Your task to perform on an android device: refresh tabs in the chrome app Image 0: 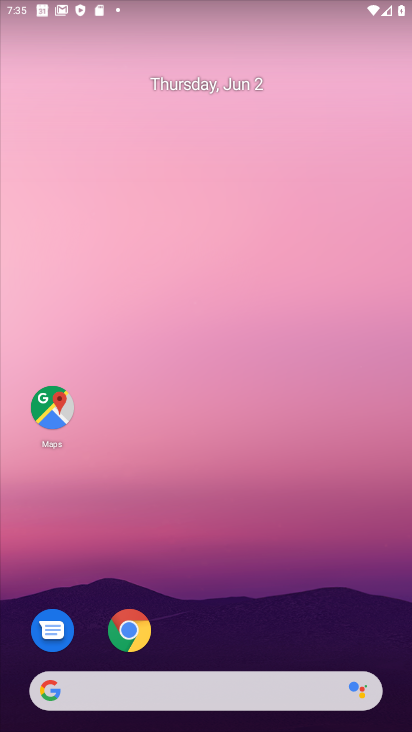
Step 0: click (133, 637)
Your task to perform on an android device: refresh tabs in the chrome app Image 1: 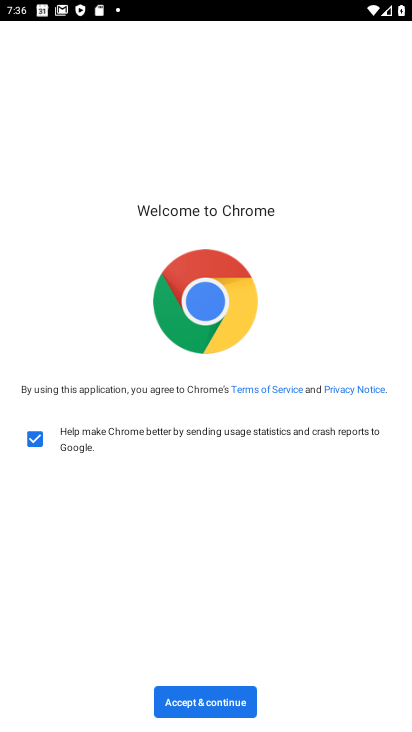
Step 1: click (201, 713)
Your task to perform on an android device: refresh tabs in the chrome app Image 2: 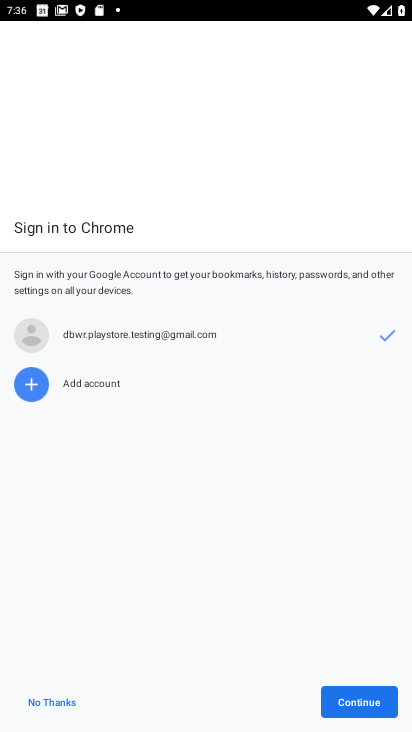
Step 2: click (391, 708)
Your task to perform on an android device: refresh tabs in the chrome app Image 3: 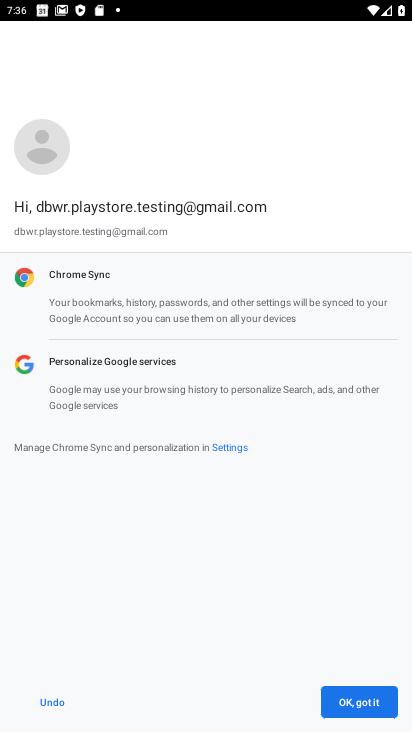
Step 3: click (369, 711)
Your task to perform on an android device: refresh tabs in the chrome app Image 4: 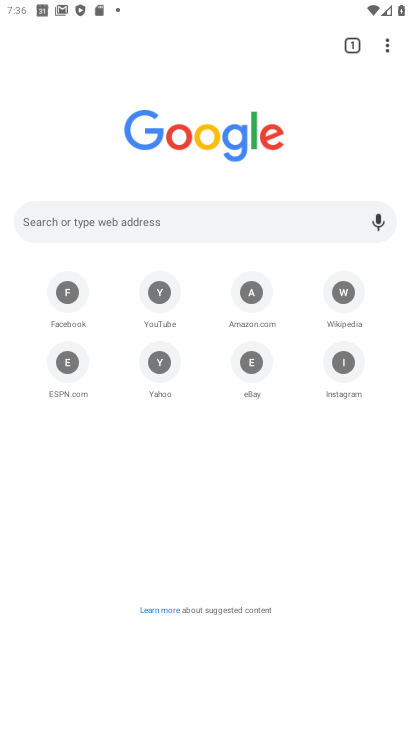
Step 4: click (385, 50)
Your task to perform on an android device: refresh tabs in the chrome app Image 5: 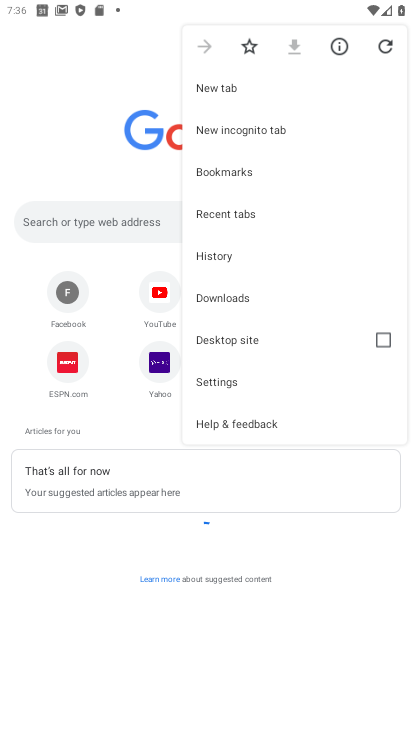
Step 5: click (384, 44)
Your task to perform on an android device: refresh tabs in the chrome app Image 6: 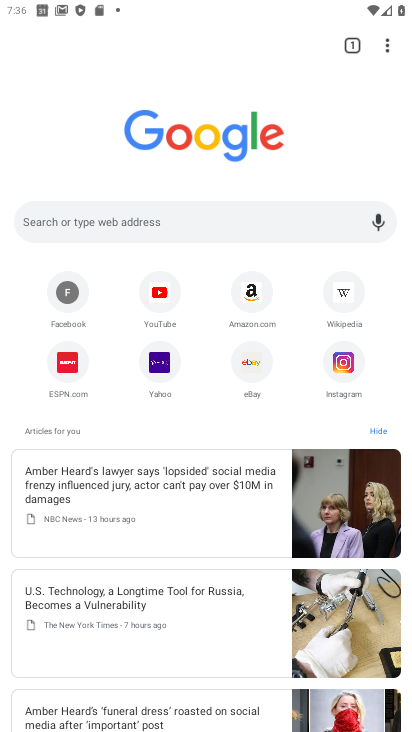
Step 6: click (384, 44)
Your task to perform on an android device: refresh tabs in the chrome app Image 7: 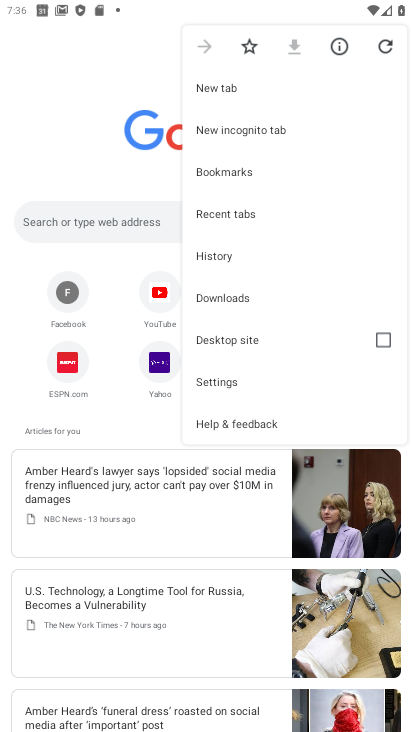
Step 7: click (376, 45)
Your task to perform on an android device: refresh tabs in the chrome app Image 8: 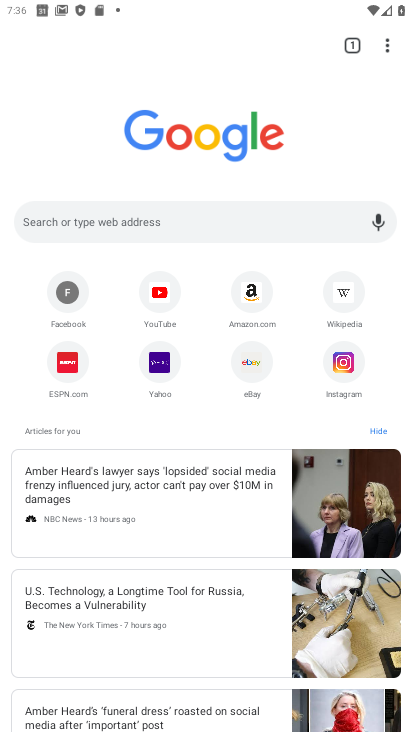
Step 8: task complete